Your task to perform on an android device: toggle wifi Image 0: 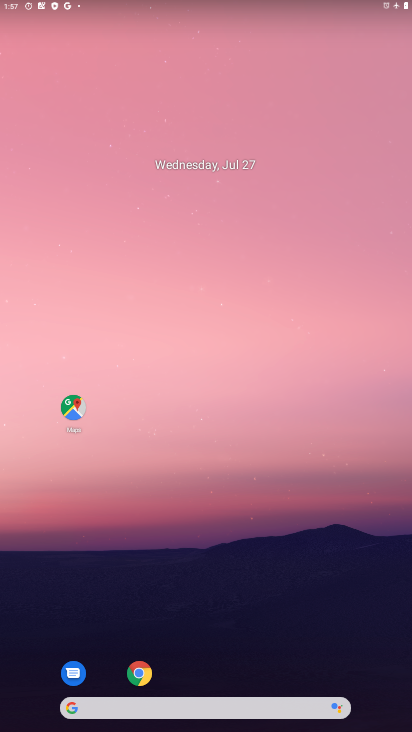
Step 0: drag from (212, 657) to (205, 5)
Your task to perform on an android device: toggle wifi Image 1: 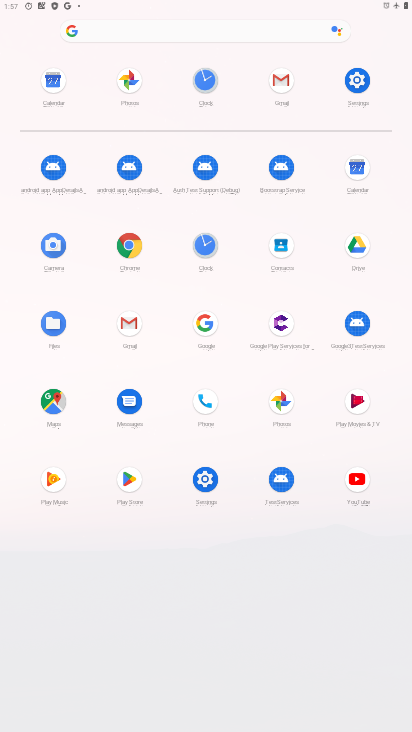
Step 1: click (357, 83)
Your task to perform on an android device: toggle wifi Image 2: 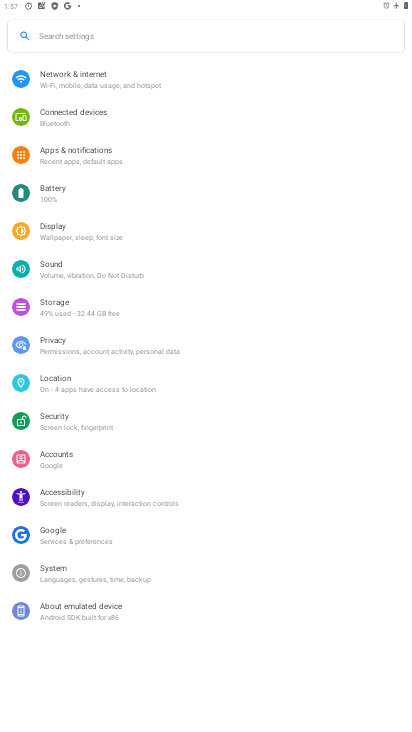
Step 2: click (105, 76)
Your task to perform on an android device: toggle wifi Image 3: 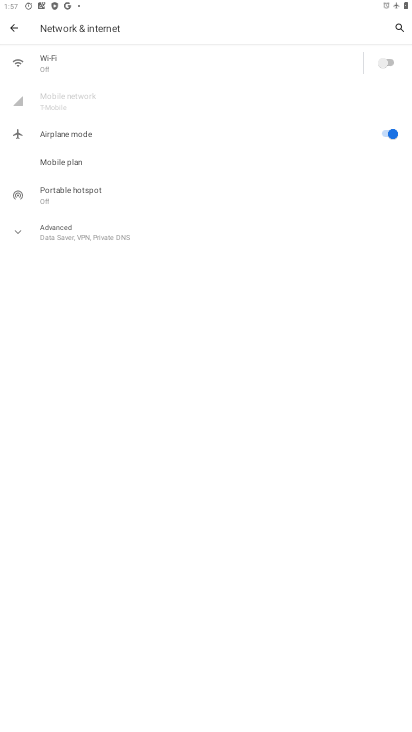
Step 3: click (386, 69)
Your task to perform on an android device: toggle wifi Image 4: 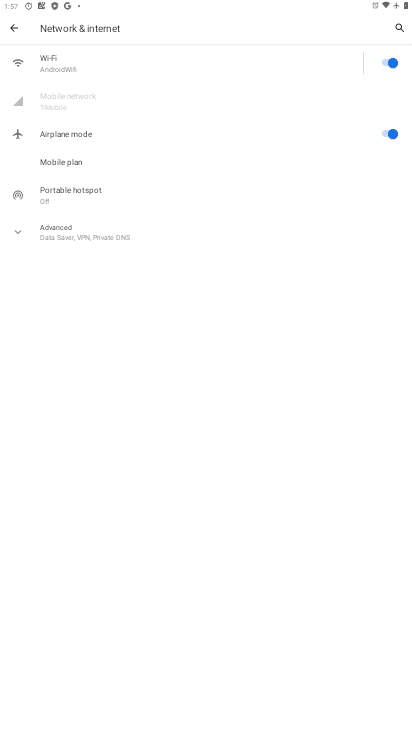
Step 4: task complete